Your task to perform on an android device: visit the assistant section in the google photos Image 0: 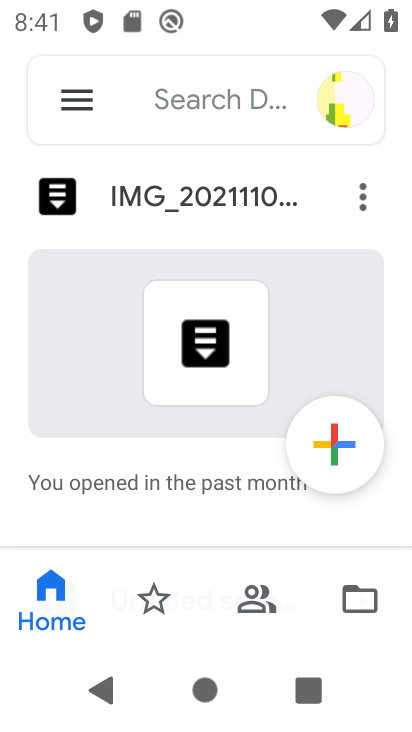
Step 0: press home button
Your task to perform on an android device: visit the assistant section in the google photos Image 1: 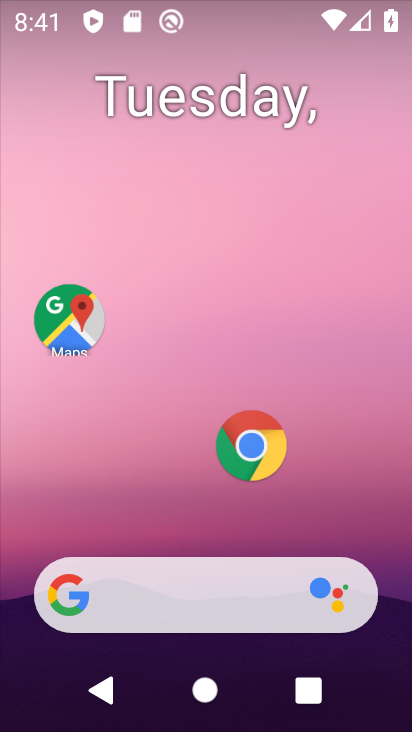
Step 1: drag from (191, 505) to (248, 33)
Your task to perform on an android device: visit the assistant section in the google photos Image 2: 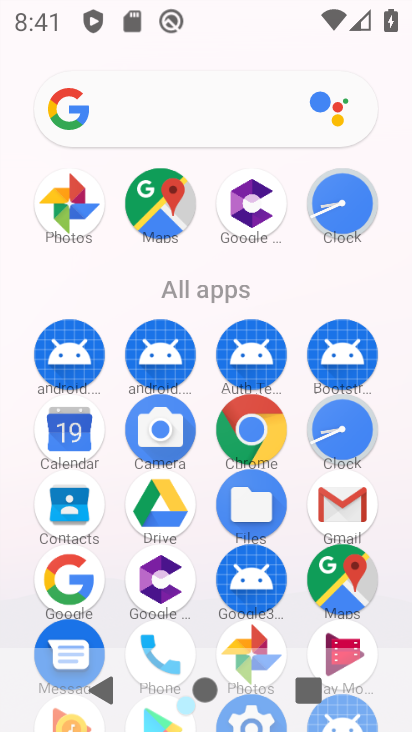
Step 2: click (69, 201)
Your task to perform on an android device: visit the assistant section in the google photos Image 3: 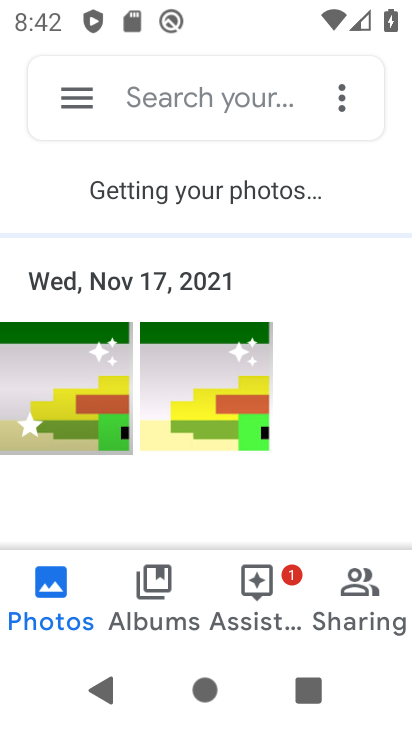
Step 3: click (259, 571)
Your task to perform on an android device: visit the assistant section in the google photos Image 4: 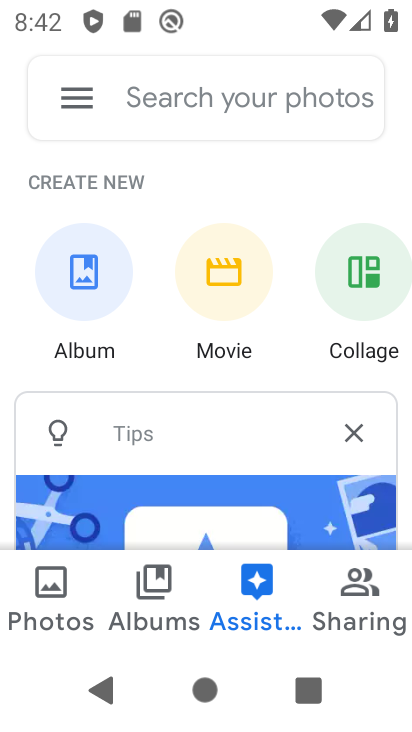
Step 4: task complete